Your task to perform on an android device: Search for Mexican restaurants on Maps Image 0: 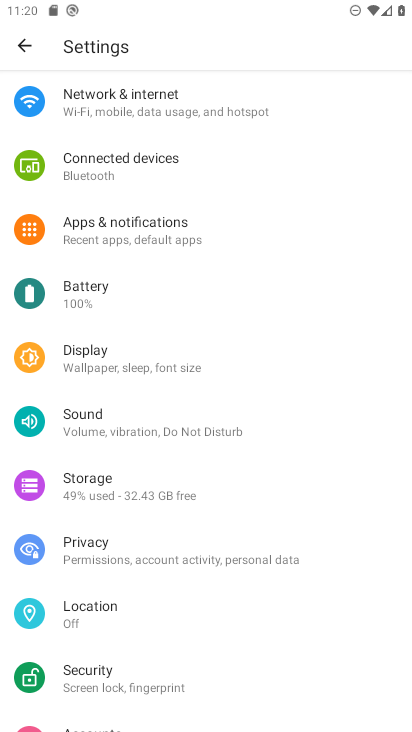
Step 0: click (22, 46)
Your task to perform on an android device: Search for Mexican restaurants on Maps Image 1: 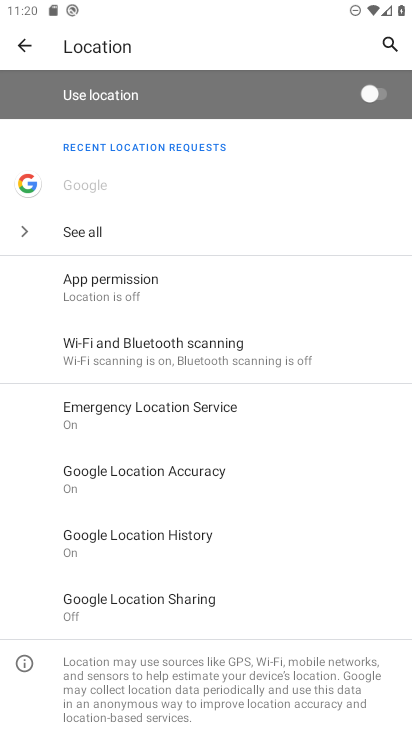
Step 1: click (16, 43)
Your task to perform on an android device: Search for Mexican restaurants on Maps Image 2: 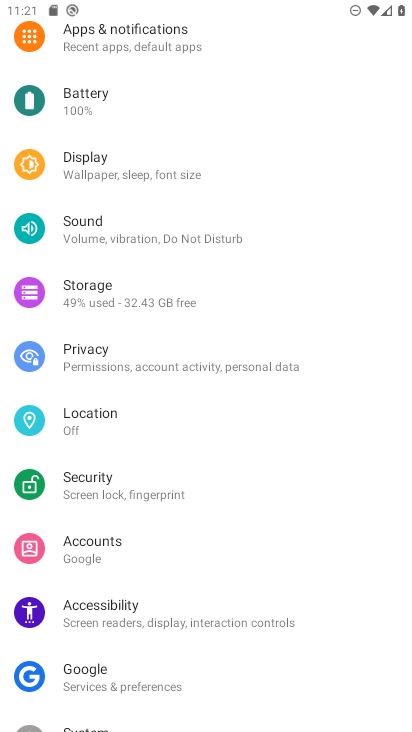
Step 2: drag from (192, 562) to (118, 225)
Your task to perform on an android device: Search for Mexican restaurants on Maps Image 3: 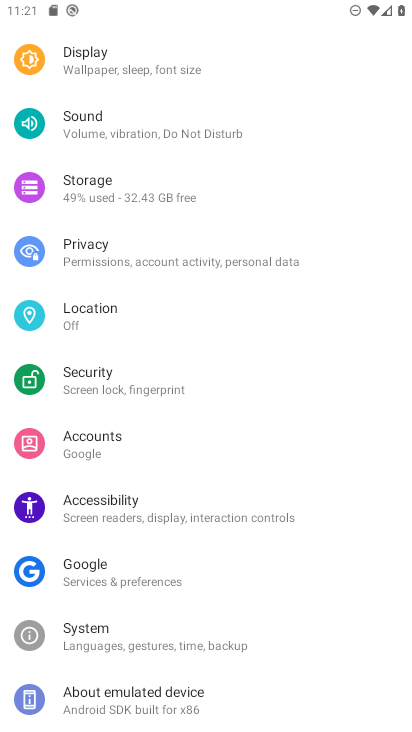
Step 3: press back button
Your task to perform on an android device: Search for Mexican restaurants on Maps Image 4: 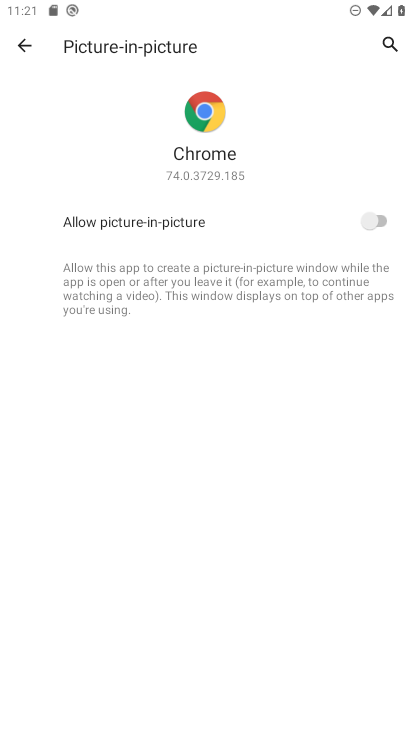
Step 4: click (18, 40)
Your task to perform on an android device: Search for Mexican restaurants on Maps Image 5: 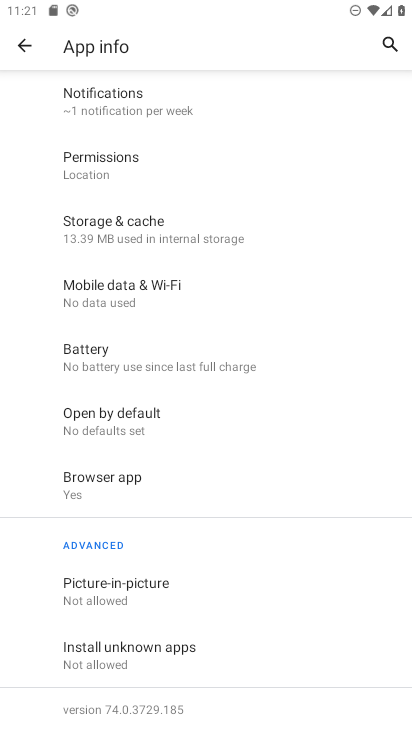
Step 5: click (17, 41)
Your task to perform on an android device: Search for Mexican restaurants on Maps Image 6: 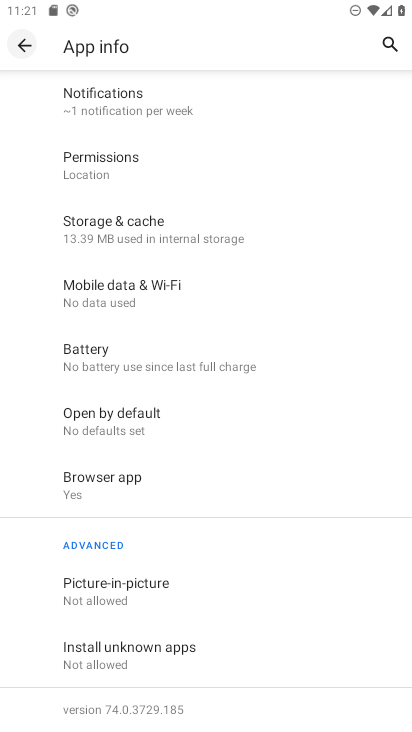
Step 6: click (19, 42)
Your task to perform on an android device: Search for Mexican restaurants on Maps Image 7: 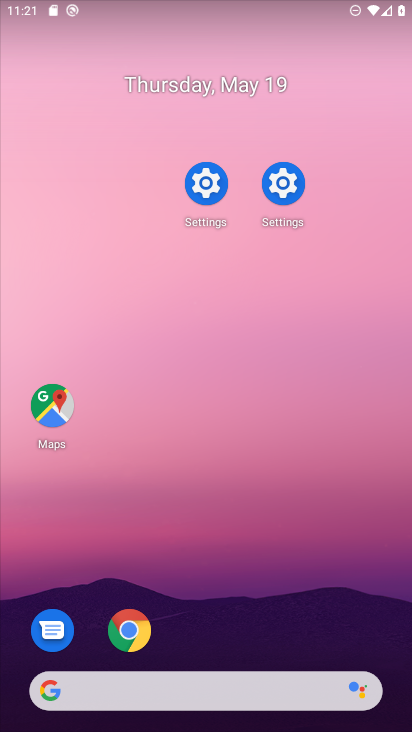
Step 7: drag from (252, 598) to (163, 80)
Your task to perform on an android device: Search for Mexican restaurants on Maps Image 8: 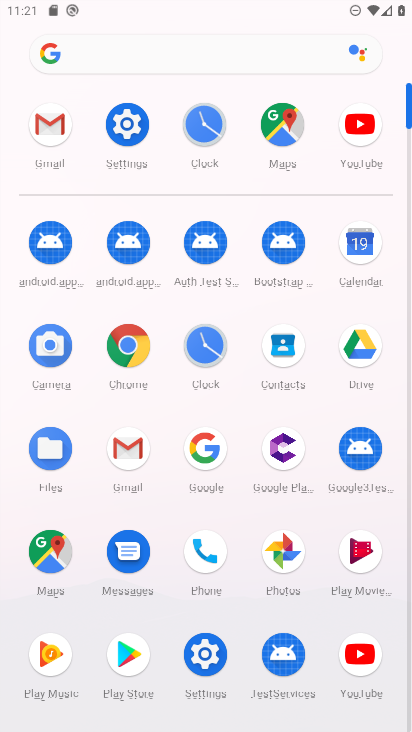
Step 8: click (286, 136)
Your task to perform on an android device: Search for Mexican restaurants on Maps Image 9: 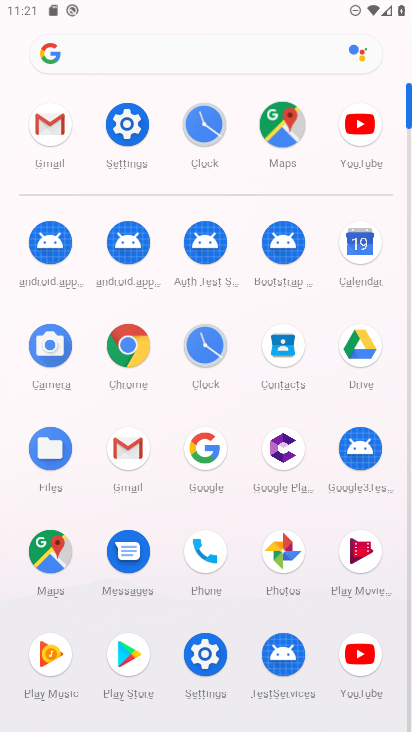
Step 9: click (285, 134)
Your task to perform on an android device: Search for Mexican restaurants on Maps Image 10: 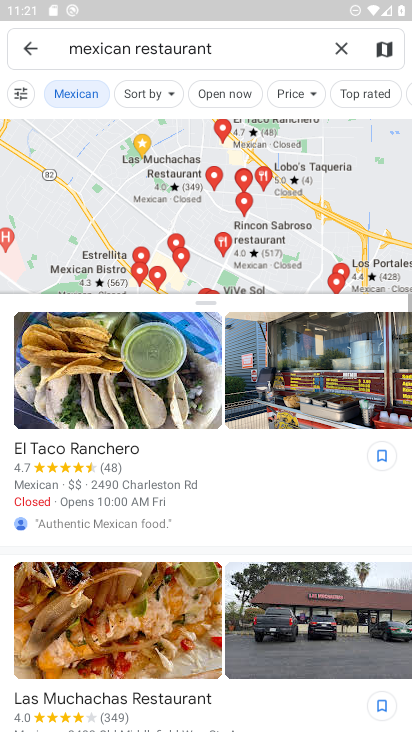
Step 10: task complete